Your task to perform on an android device: Go to notification settings Image 0: 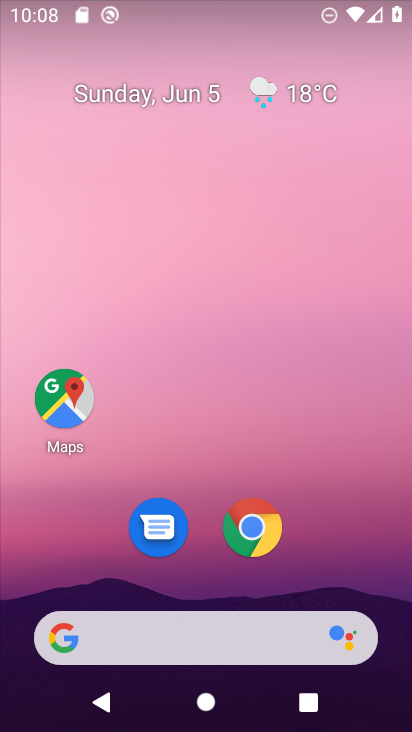
Step 0: drag from (189, 594) to (220, 97)
Your task to perform on an android device: Go to notification settings Image 1: 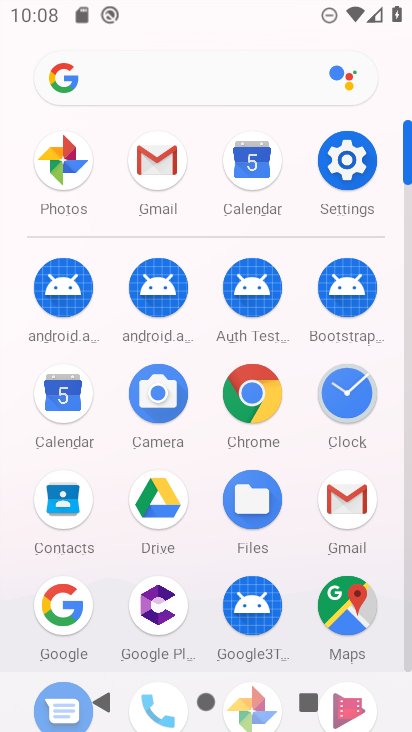
Step 1: click (347, 164)
Your task to perform on an android device: Go to notification settings Image 2: 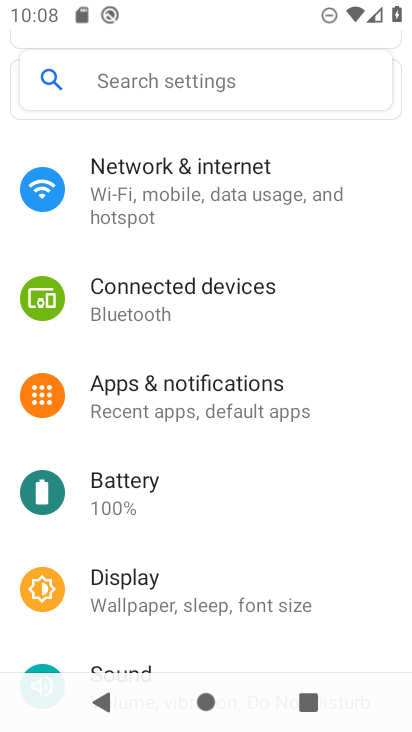
Step 2: click (233, 386)
Your task to perform on an android device: Go to notification settings Image 3: 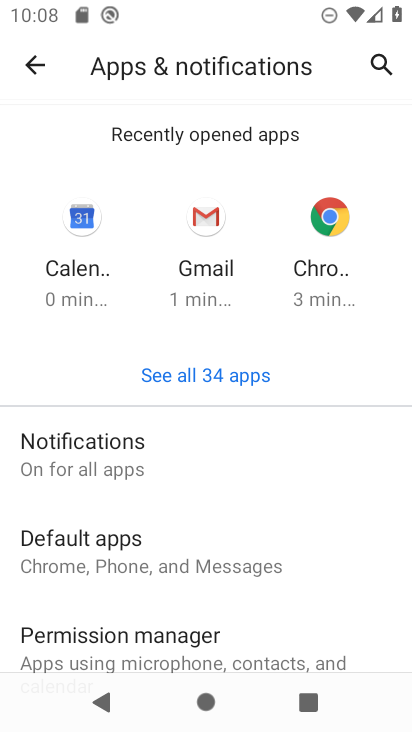
Step 3: click (194, 437)
Your task to perform on an android device: Go to notification settings Image 4: 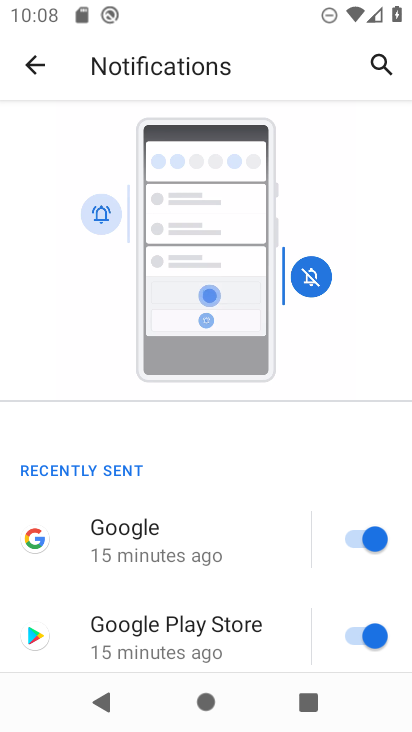
Step 4: task complete